Your task to perform on an android device: Clear the shopping cart on walmart.com. Add "bose soundlink mini" to the cart on walmart.com Image 0: 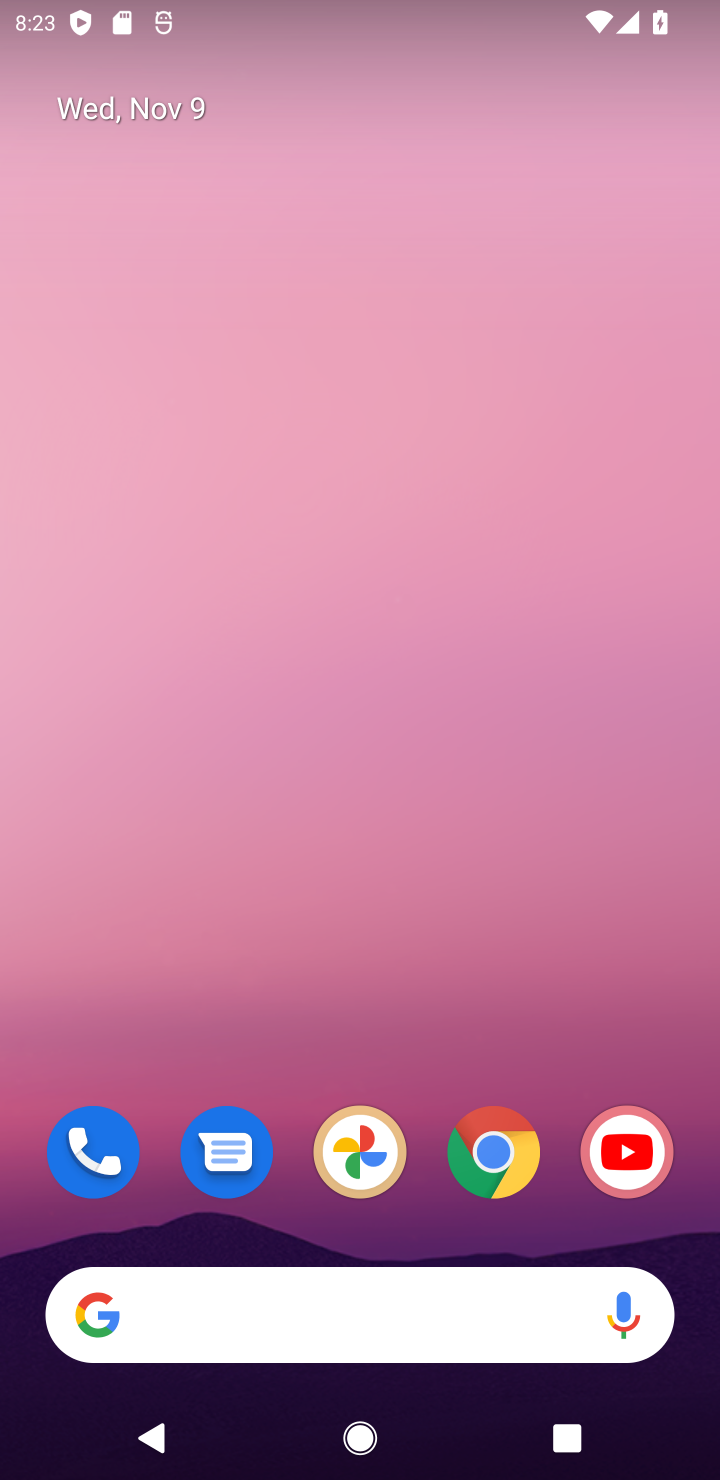
Step 0: click (482, 1169)
Your task to perform on an android device: Clear the shopping cart on walmart.com. Add "bose soundlink mini" to the cart on walmart.com Image 1: 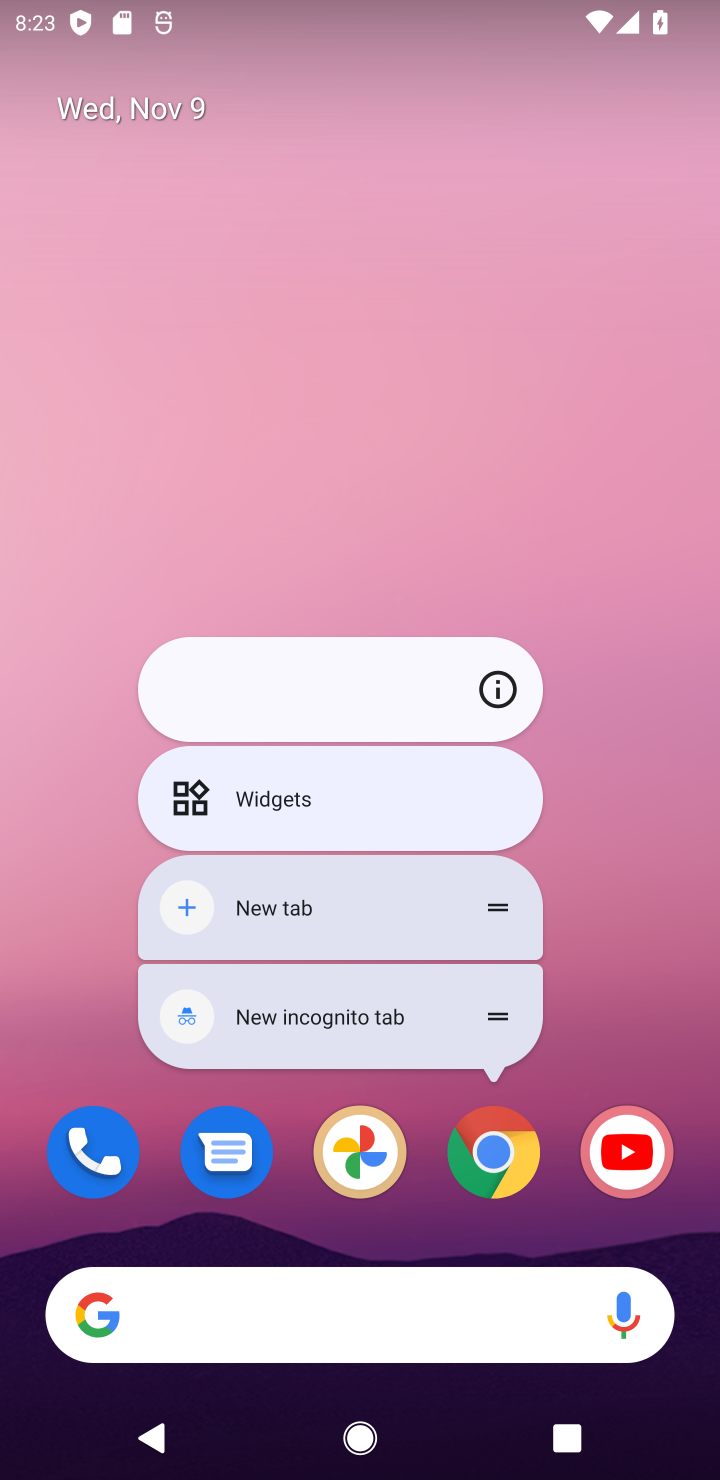
Step 1: click (482, 1158)
Your task to perform on an android device: Clear the shopping cart on walmart.com. Add "bose soundlink mini" to the cart on walmart.com Image 2: 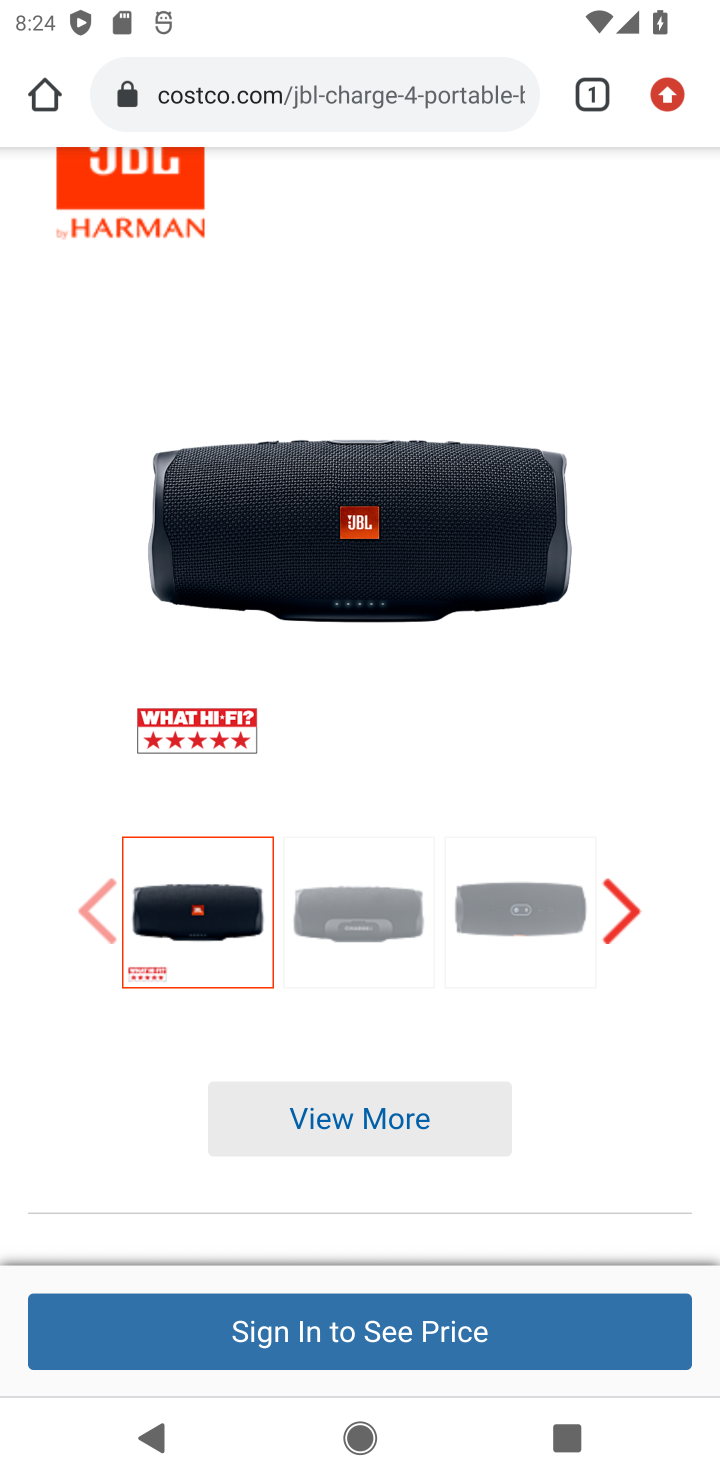
Step 2: click (365, 96)
Your task to perform on an android device: Clear the shopping cart on walmart.com. Add "bose soundlink mini" to the cart on walmart.com Image 3: 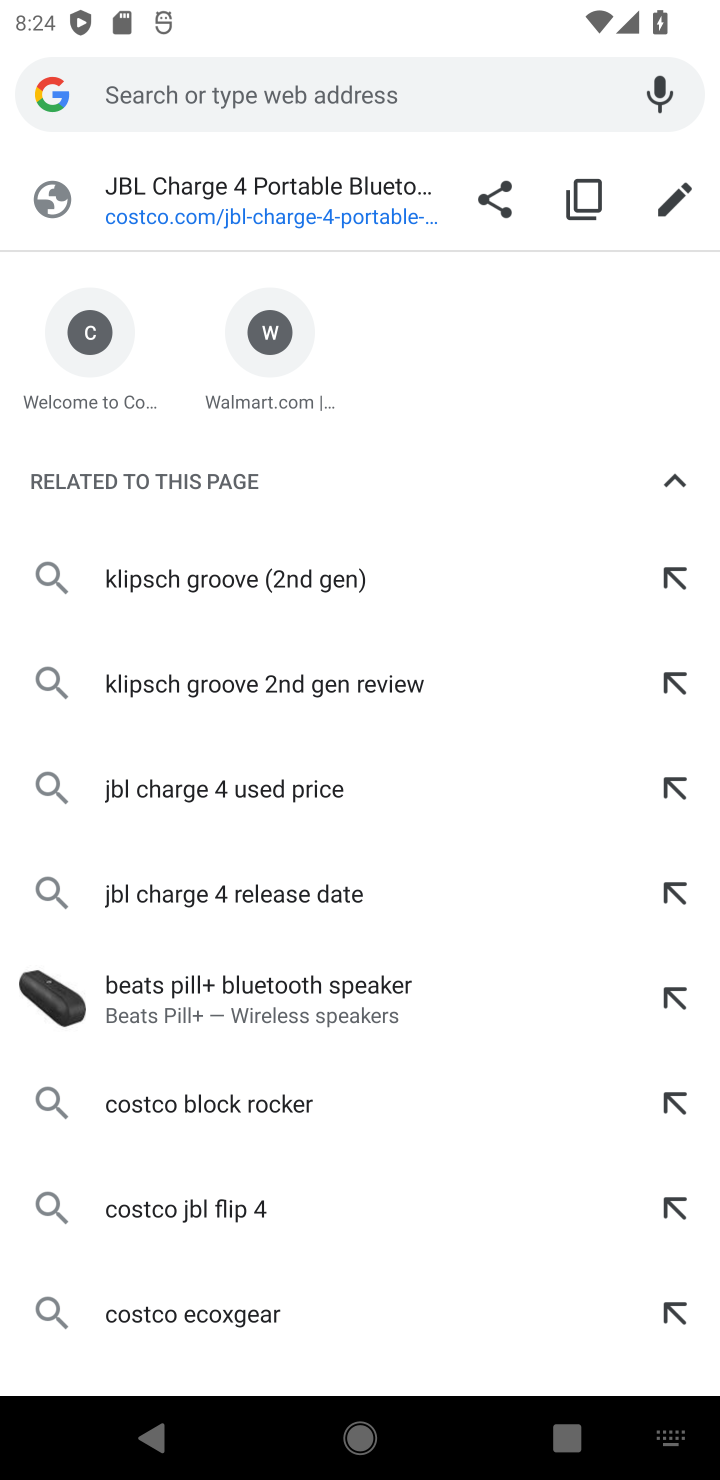
Step 3: click (286, 393)
Your task to perform on an android device: Clear the shopping cart on walmart.com. Add "bose soundlink mini" to the cart on walmart.com Image 4: 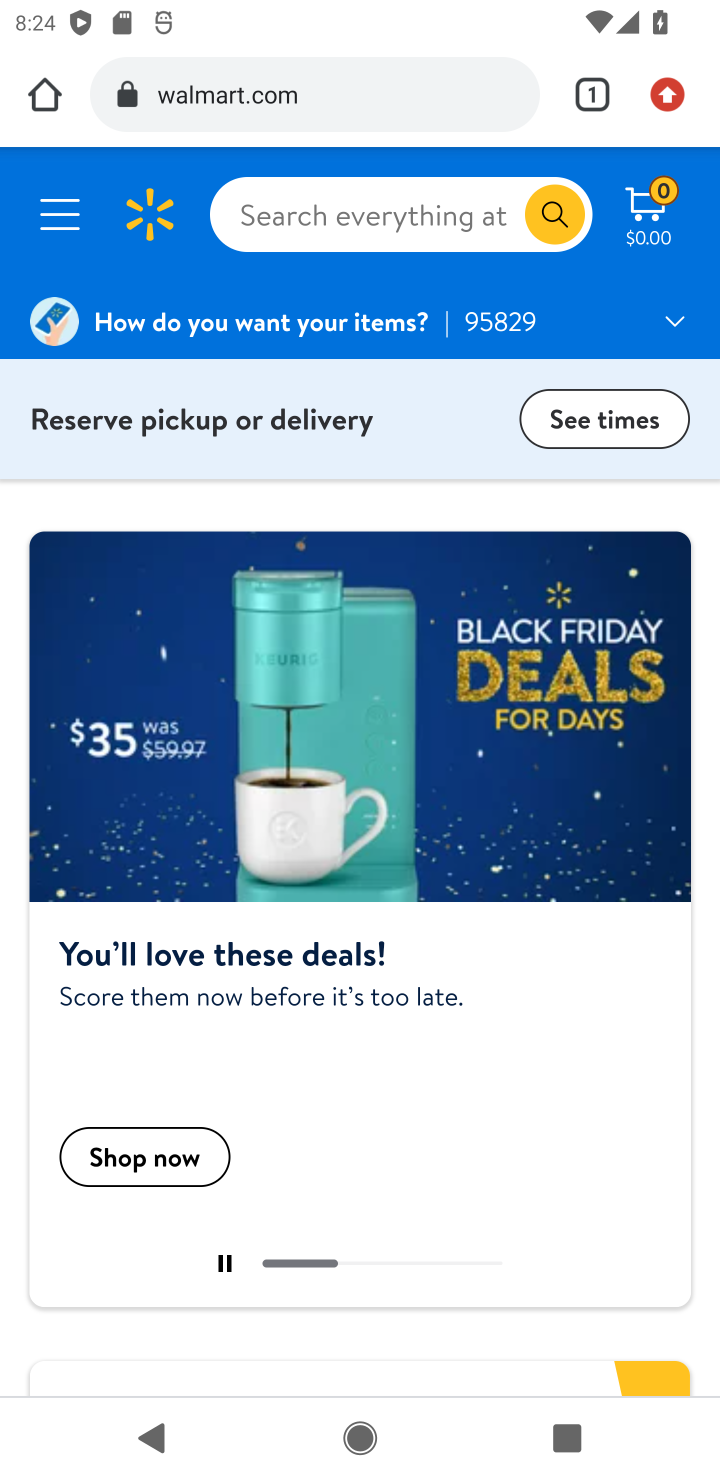
Step 4: click (306, 217)
Your task to perform on an android device: Clear the shopping cart on walmart.com. Add "bose soundlink mini" to the cart on walmart.com Image 5: 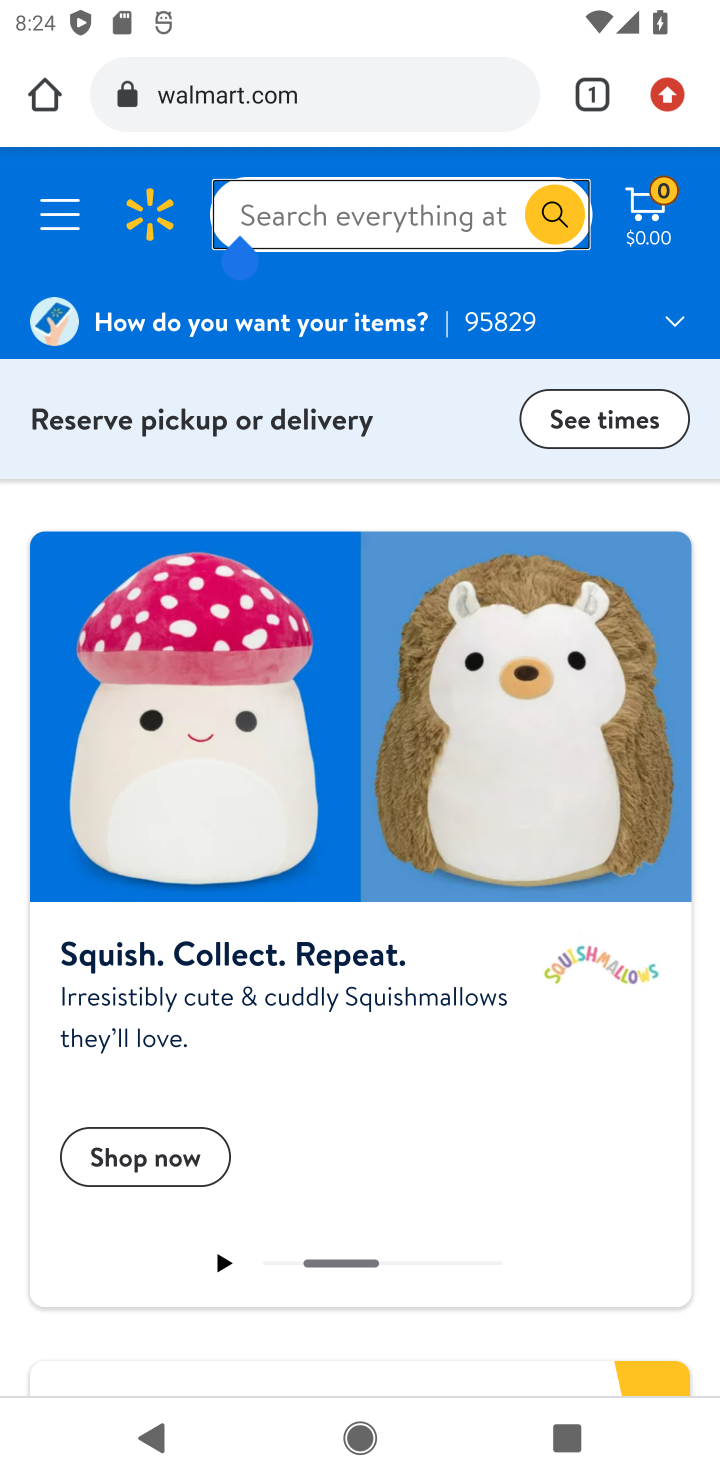
Step 5: click (368, 199)
Your task to perform on an android device: Clear the shopping cart on walmart.com. Add "bose soundlink mini" to the cart on walmart.com Image 6: 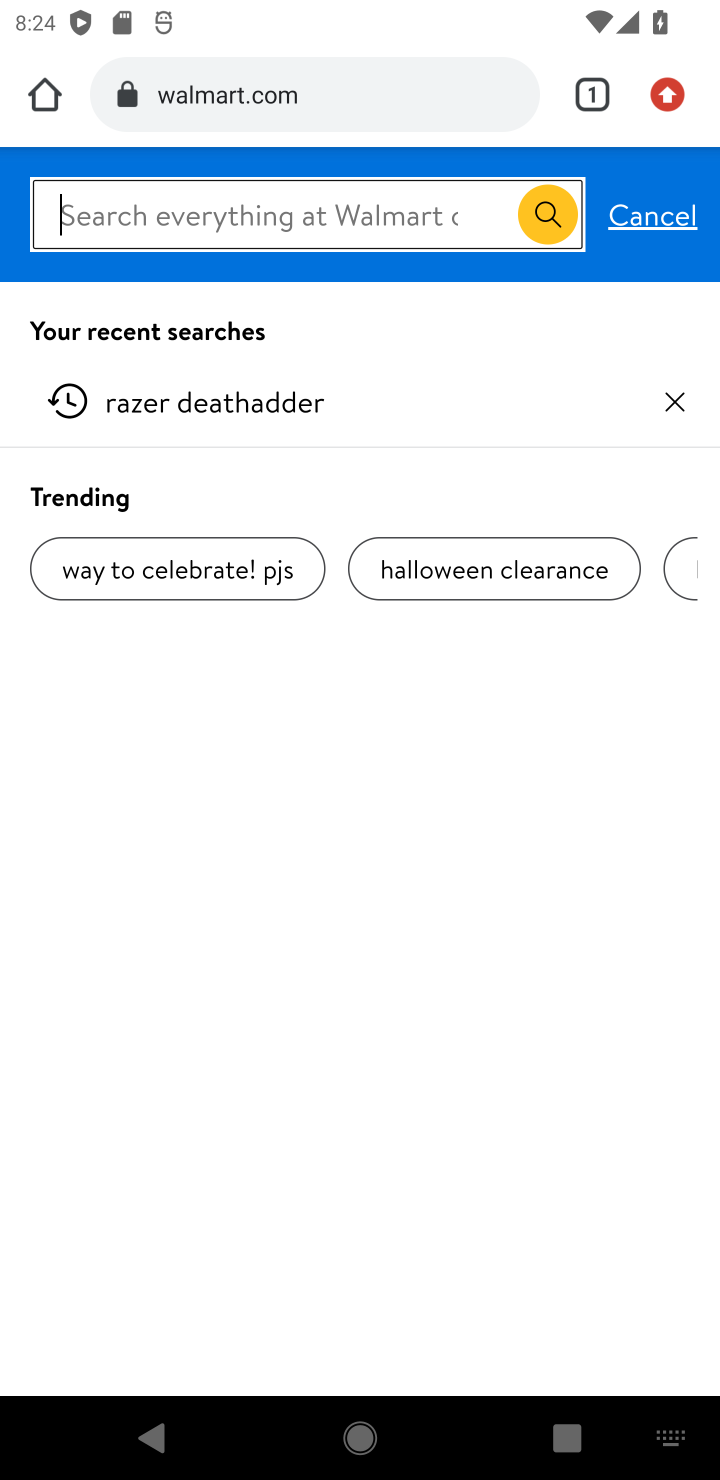
Step 6: type "bose soundlink mini"
Your task to perform on an android device: Clear the shopping cart on walmart.com. Add "bose soundlink mini" to the cart on walmart.com Image 7: 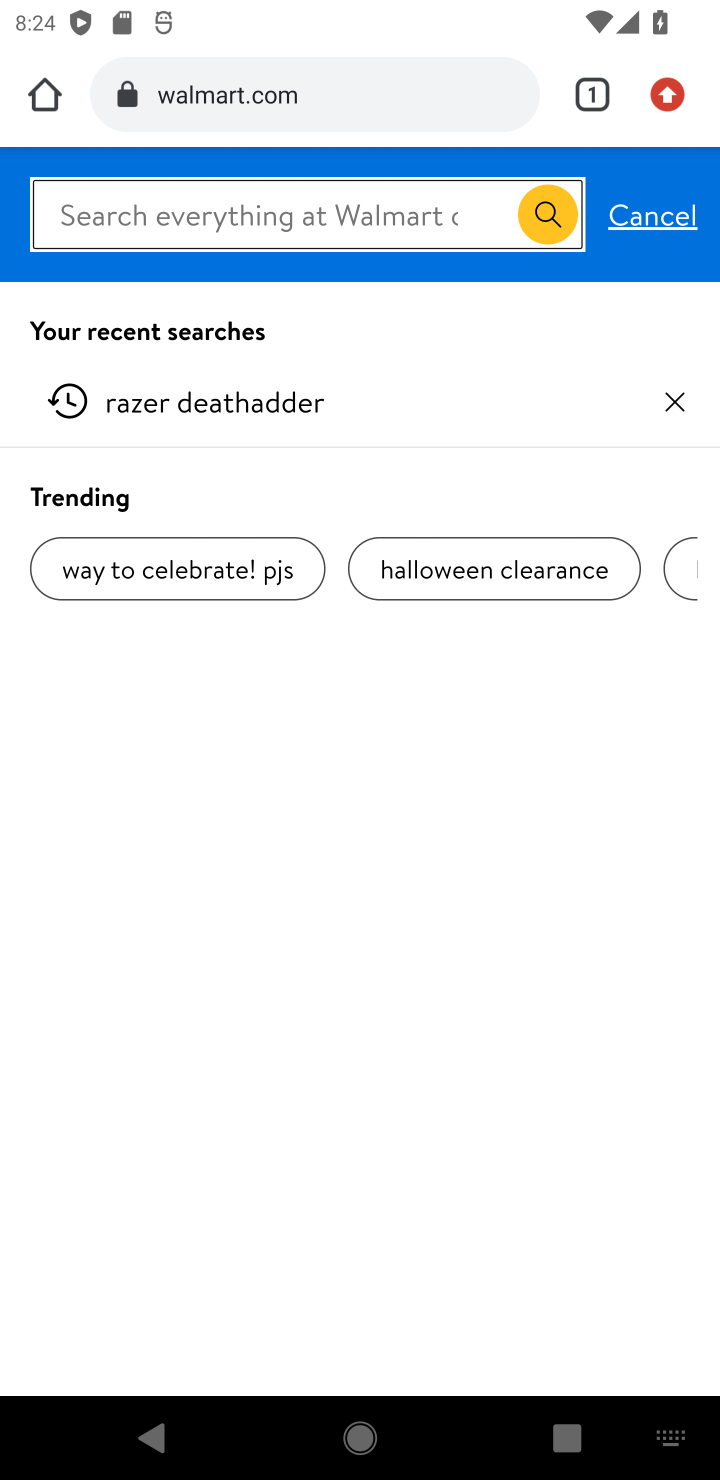
Step 7: press enter
Your task to perform on an android device: Clear the shopping cart on walmart.com. Add "bose soundlink mini" to the cart on walmart.com Image 8: 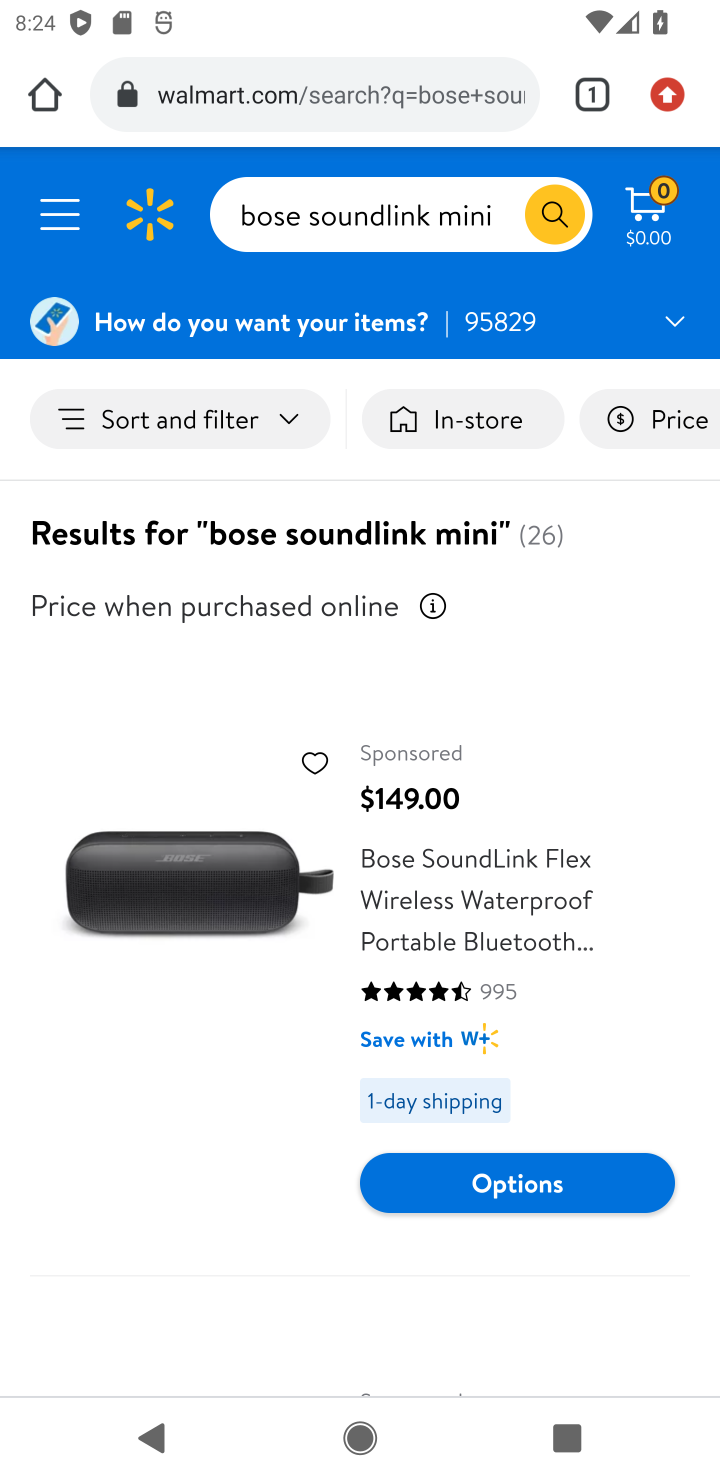
Step 8: drag from (255, 1240) to (445, 609)
Your task to perform on an android device: Clear the shopping cart on walmart.com. Add "bose soundlink mini" to the cart on walmart.com Image 9: 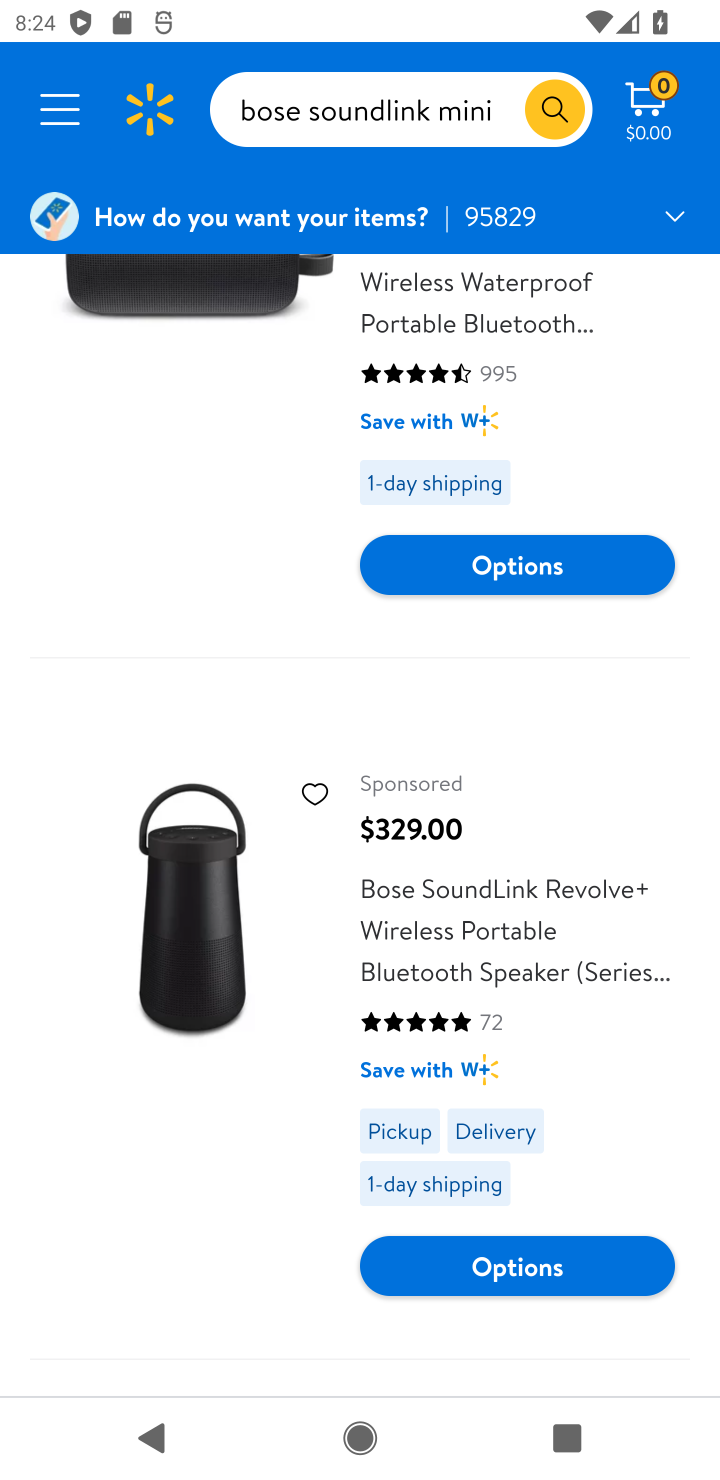
Step 9: drag from (261, 1161) to (434, 281)
Your task to perform on an android device: Clear the shopping cart on walmart.com. Add "bose soundlink mini" to the cart on walmart.com Image 10: 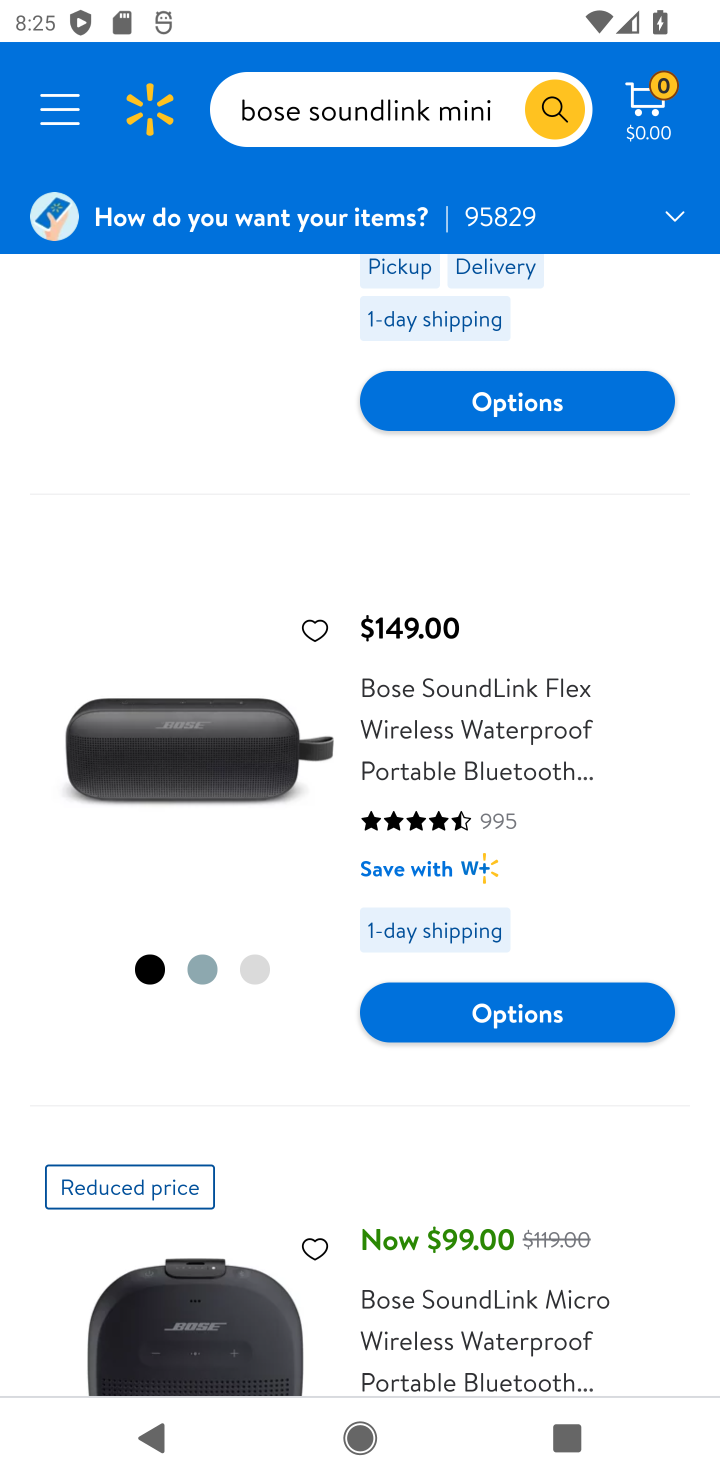
Step 10: drag from (248, 401) to (380, 1358)
Your task to perform on an android device: Clear the shopping cart on walmart.com. Add "bose soundlink mini" to the cart on walmart.com Image 11: 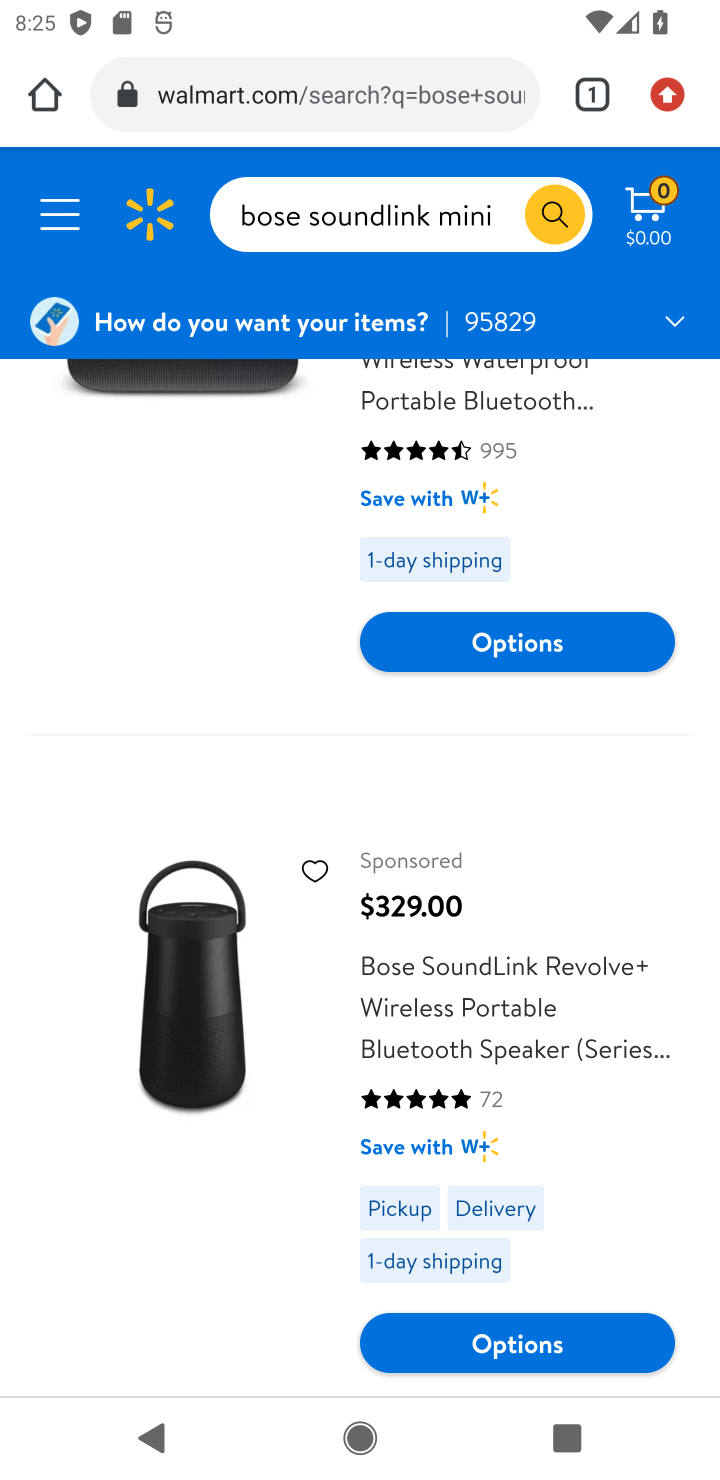
Step 11: drag from (276, 537) to (325, 1201)
Your task to perform on an android device: Clear the shopping cart on walmart.com. Add "bose soundlink mini" to the cart on walmart.com Image 12: 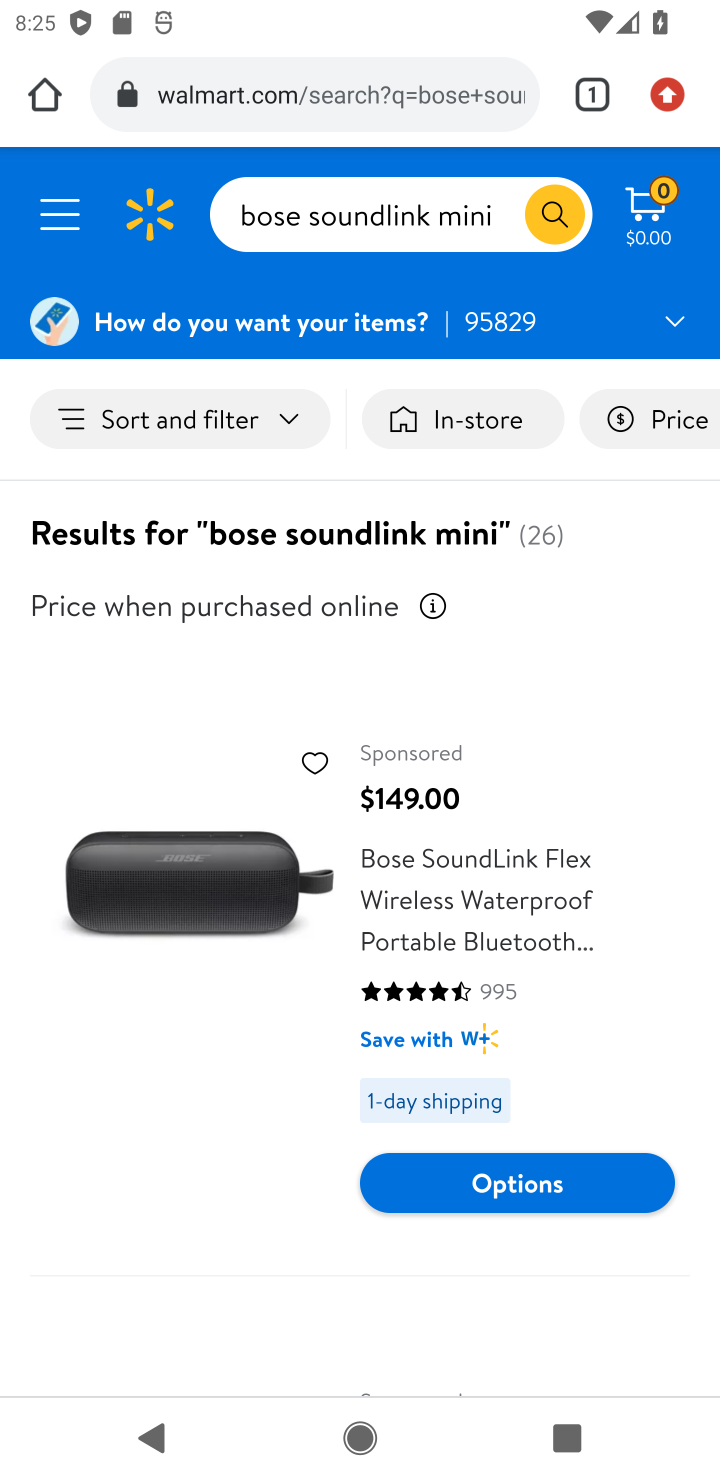
Step 12: click (523, 926)
Your task to perform on an android device: Clear the shopping cart on walmart.com. Add "bose soundlink mini" to the cart on walmart.com Image 13: 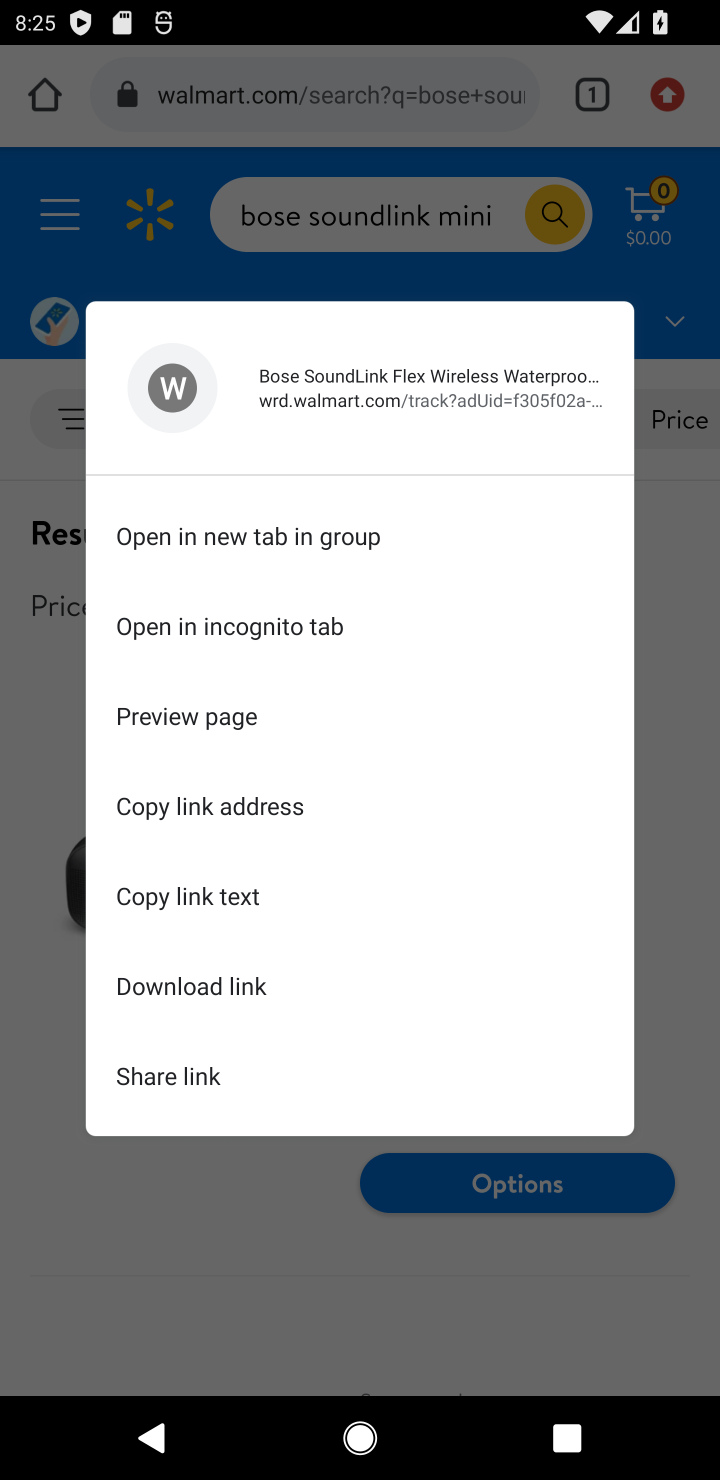
Step 13: click (654, 808)
Your task to perform on an android device: Clear the shopping cart on walmart.com. Add "bose soundlink mini" to the cart on walmart.com Image 14: 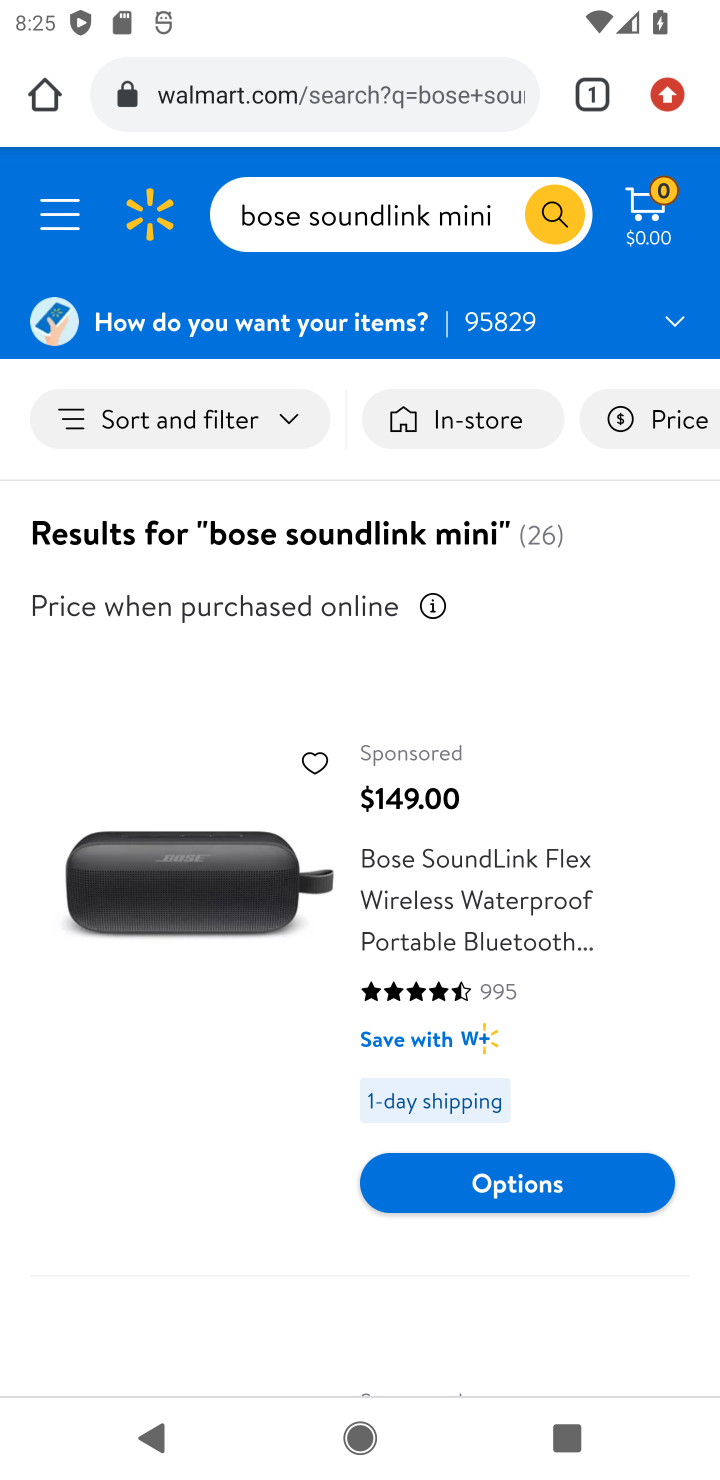
Step 14: click (423, 891)
Your task to perform on an android device: Clear the shopping cart on walmart.com. Add "bose soundlink mini" to the cart on walmart.com Image 15: 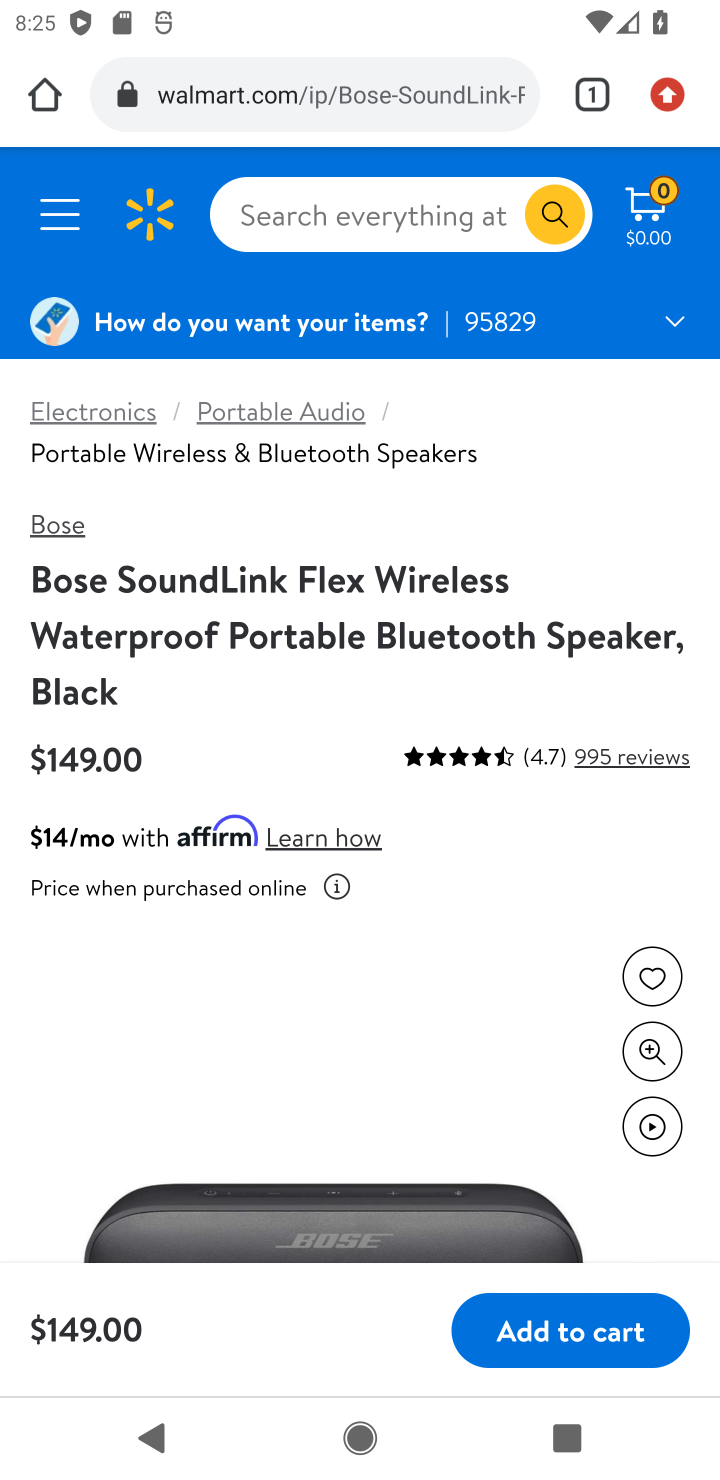
Step 15: task complete